Your task to perform on an android device: change the clock display to show seconds Image 0: 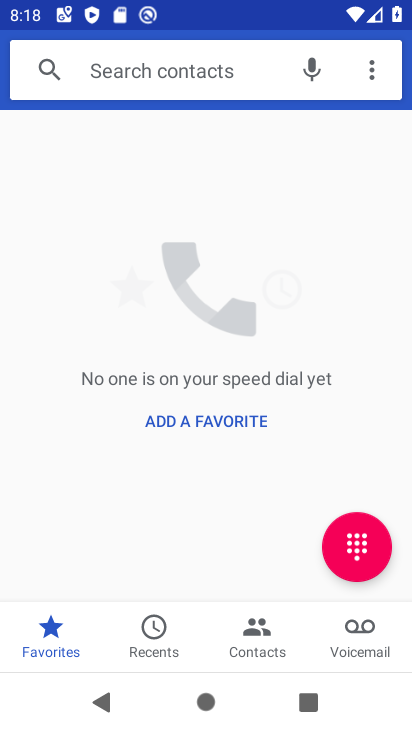
Step 0: press home button
Your task to perform on an android device: change the clock display to show seconds Image 1: 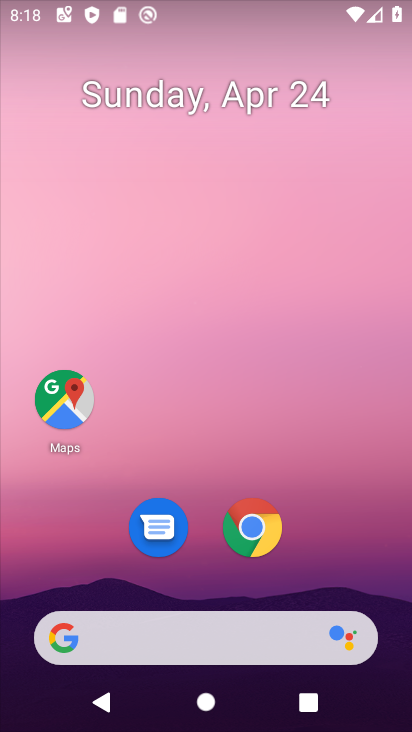
Step 1: drag from (392, 632) to (245, 132)
Your task to perform on an android device: change the clock display to show seconds Image 2: 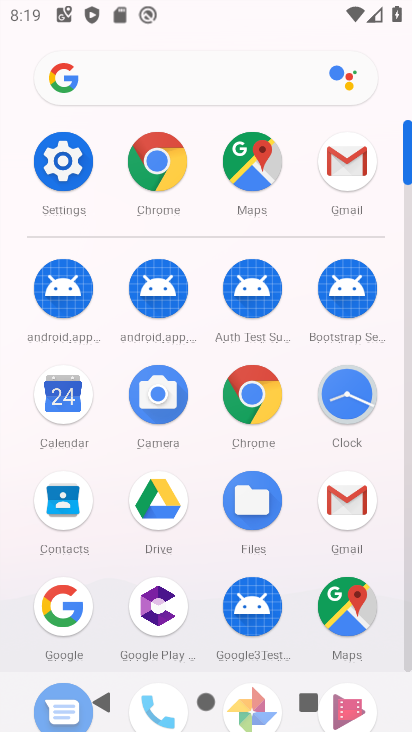
Step 2: click (314, 407)
Your task to perform on an android device: change the clock display to show seconds Image 3: 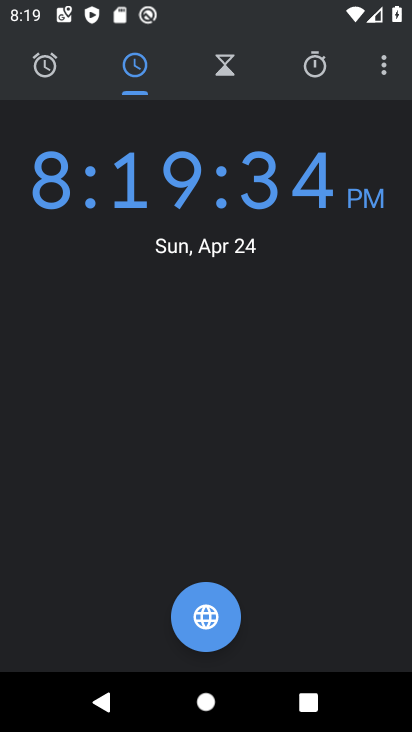
Step 3: click (382, 74)
Your task to perform on an android device: change the clock display to show seconds Image 4: 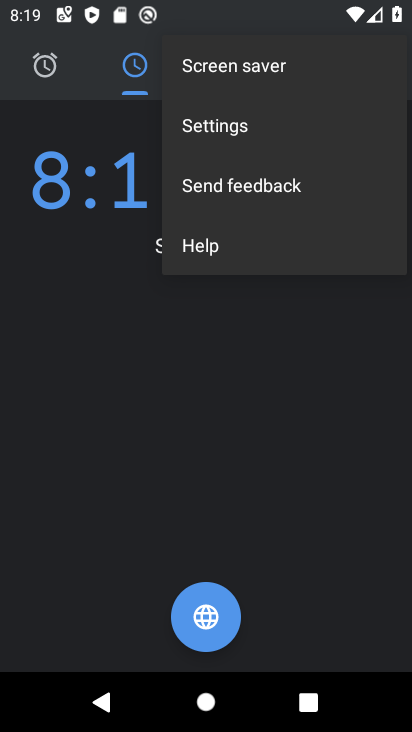
Step 4: click (263, 125)
Your task to perform on an android device: change the clock display to show seconds Image 5: 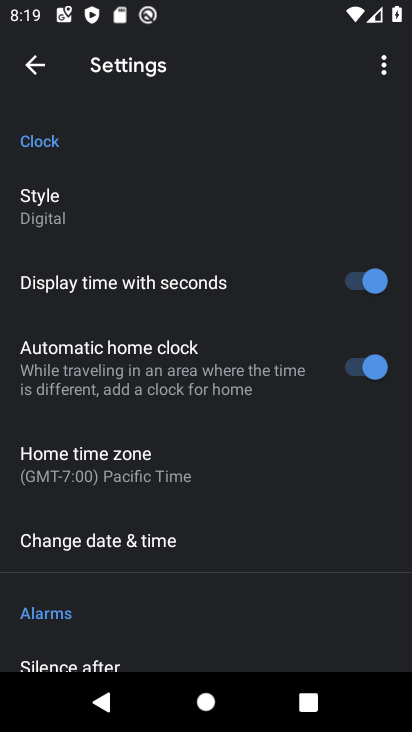
Step 5: click (331, 273)
Your task to perform on an android device: change the clock display to show seconds Image 6: 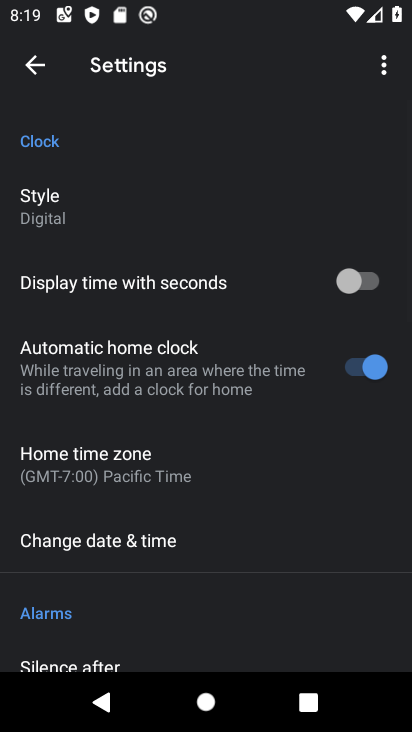
Step 6: task complete